Your task to perform on an android device: turn off notifications settings in the gmail app Image 0: 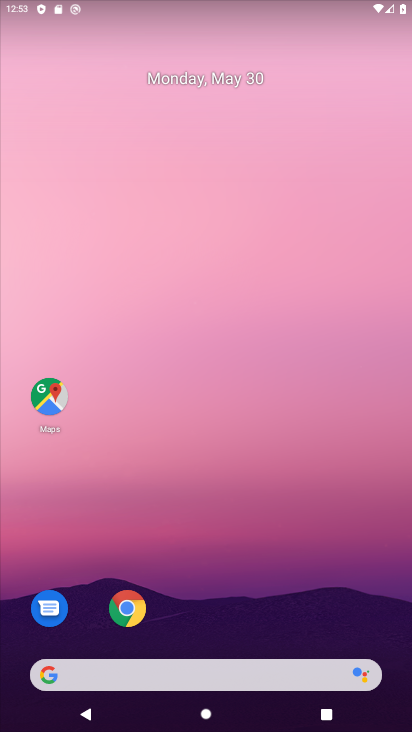
Step 0: drag from (242, 600) to (361, 118)
Your task to perform on an android device: turn off notifications settings in the gmail app Image 1: 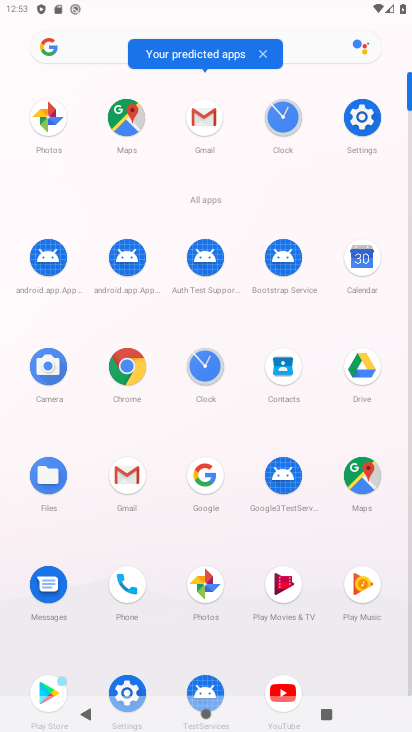
Step 1: click (130, 470)
Your task to perform on an android device: turn off notifications settings in the gmail app Image 2: 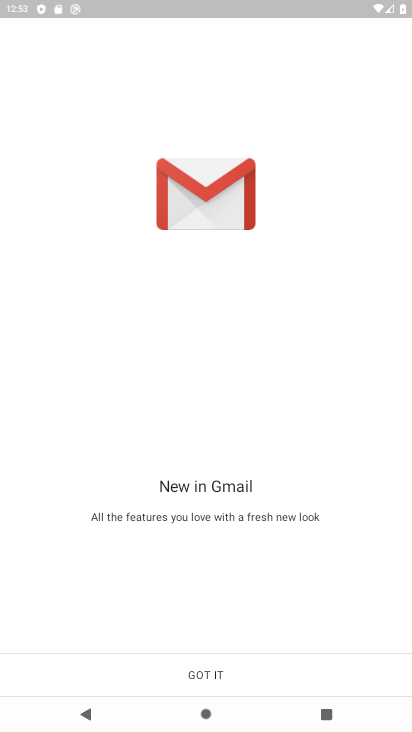
Step 2: click (209, 677)
Your task to perform on an android device: turn off notifications settings in the gmail app Image 3: 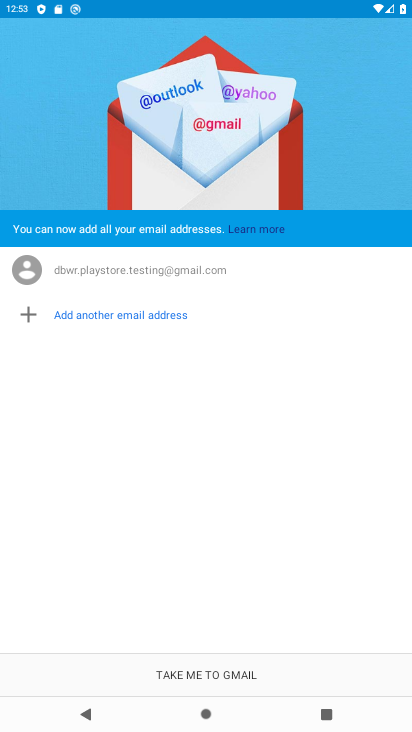
Step 3: click (218, 681)
Your task to perform on an android device: turn off notifications settings in the gmail app Image 4: 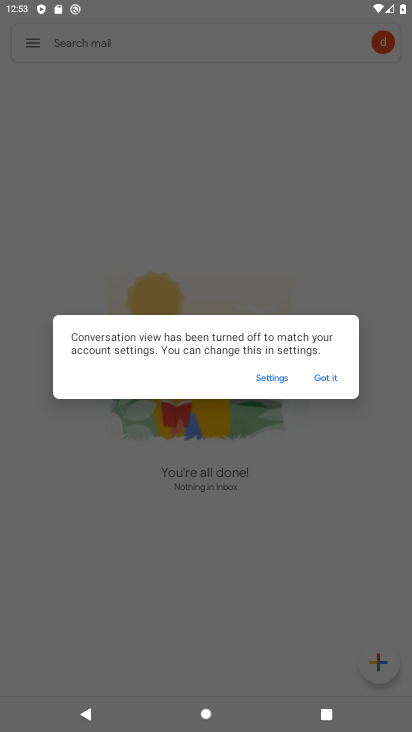
Step 4: click (325, 381)
Your task to perform on an android device: turn off notifications settings in the gmail app Image 5: 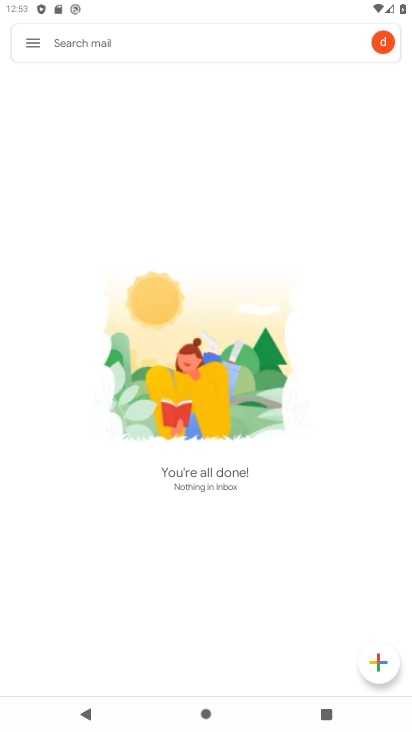
Step 5: click (37, 48)
Your task to perform on an android device: turn off notifications settings in the gmail app Image 6: 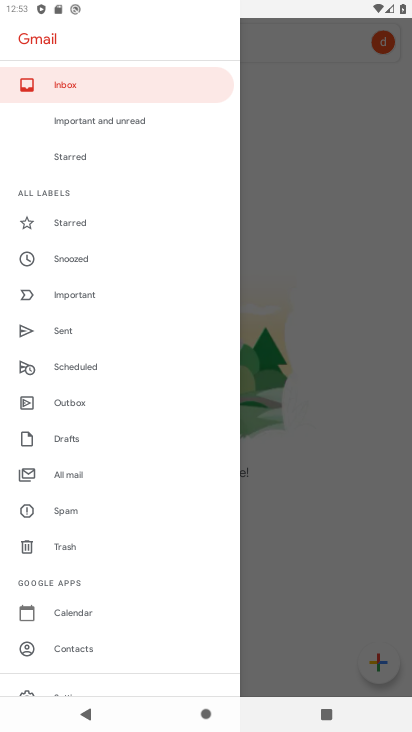
Step 6: drag from (91, 595) to (222, 177)
Your task to perform on an android device: turn off notifications settings in the gmail app Image 7: 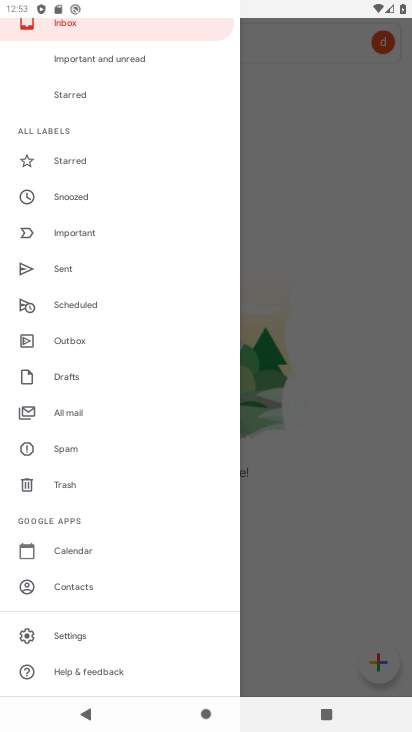
Step 7: click (76, 639)
Your task to perform on an android device: turn off notifications settings in the gmail app Image 8: 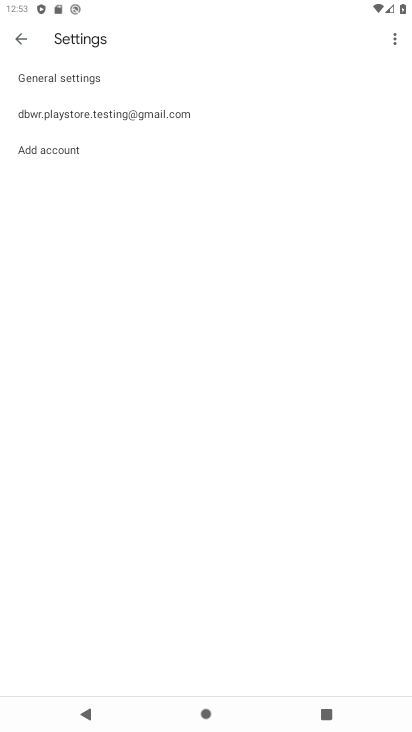
Step 8: click (91, 113)
Your task to perform on an android device: turn off notifications settings in the gmail app Image 9: 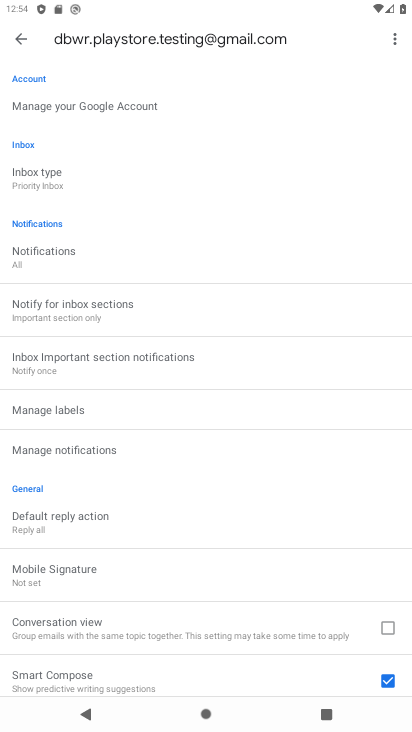
Step 9: drag from (96, 568) to (188, 226)
Your task to perform on an android device: turn off notifications settings in the gmail app Image 10: 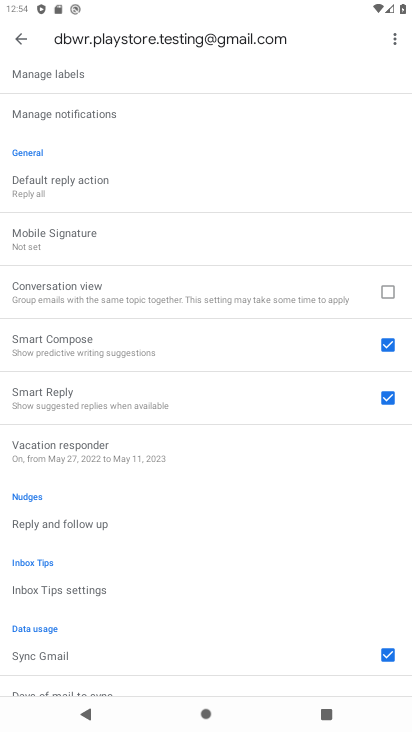
Step 10: click (59, 107)
Your task to perform on an android device: turn off notifications settings in the gmail app Image 11: 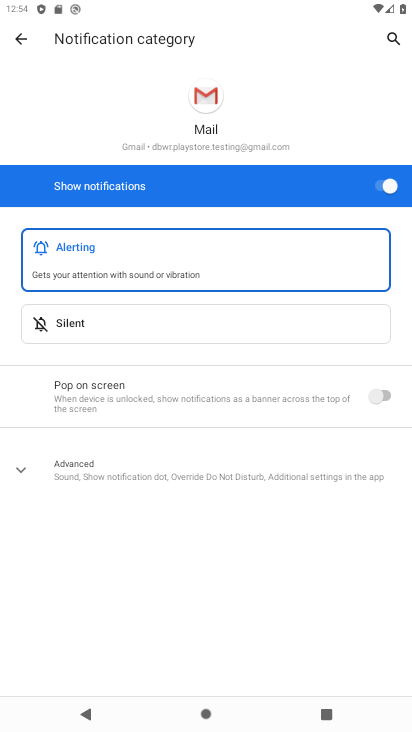
Step 11: click (380, 194)
Your task to perform on an android device: turn off notifications settings in the gmail app Image 12: 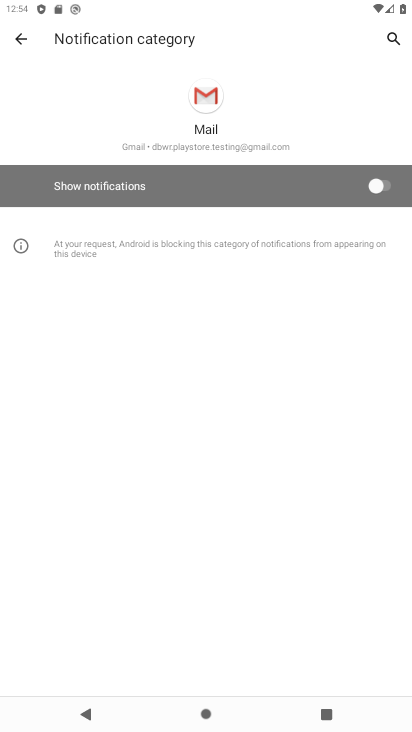
Step 12: task complete